Your task to perform on an android device: turn on location history Image 0: 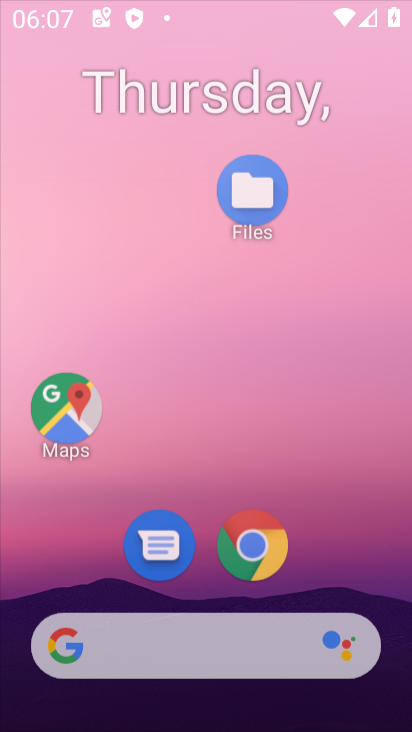
Step 0: drag from (303, 598) to (312, 207)
Your task to perform on an android device: turn on location history Image 1: 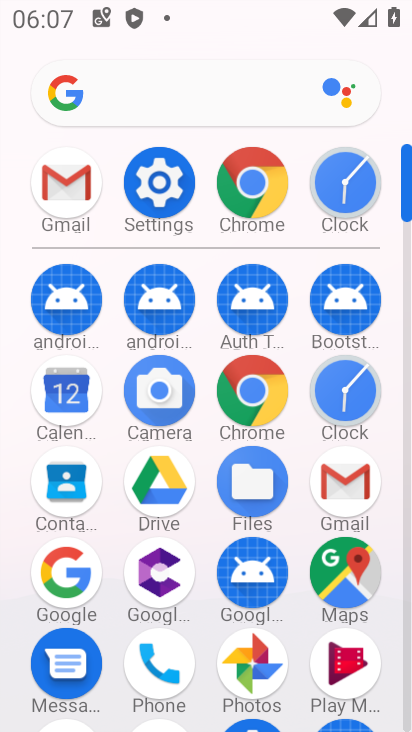
Step 1: drag from (197, 680) to (251, 442)
Your task to perform on an android device: turn on location history Image 2: 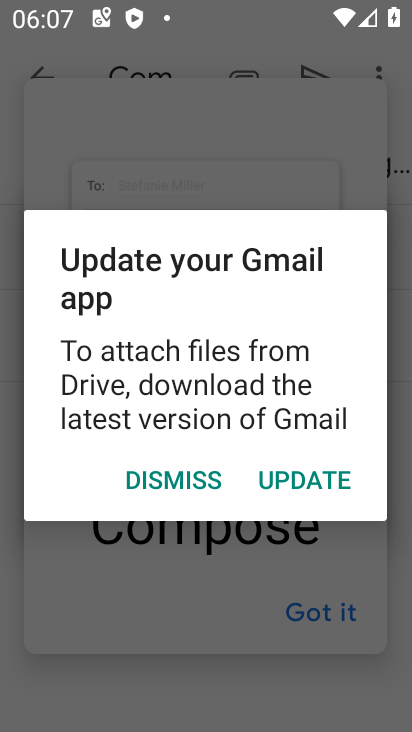
Step 2: press home button
Your task to perform on an android device: turn on location history Image 3: 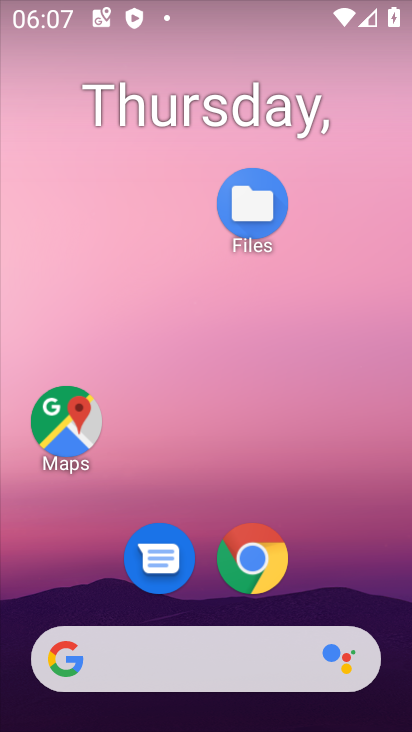
Step 3: drag from (322, 549) to (270, 30)
Your task to perform on an android device: turn on location history Image 4: 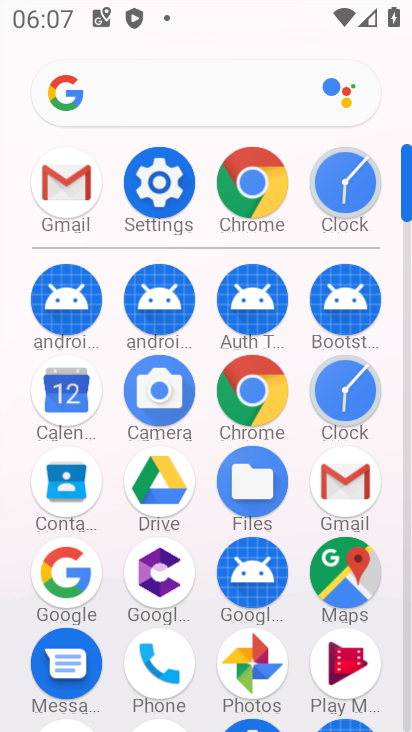
Step 4: click (169, 203)
Your task to perform on an android device: turn on location history Image 5: 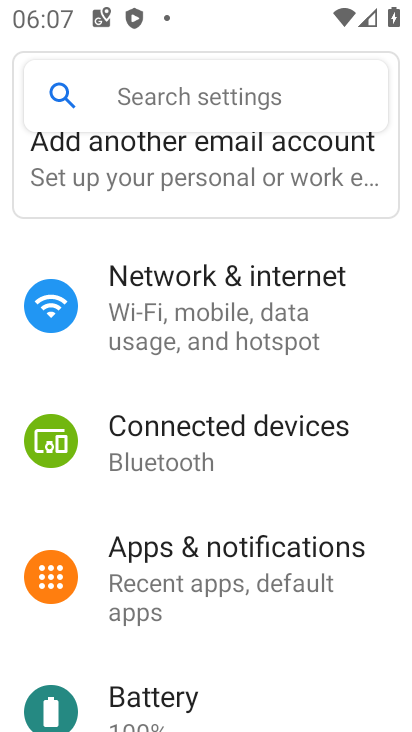
Step 5: drag from (222, 561) to (359, 107)
Your task to perform on an android device: turn on location history Image 6: 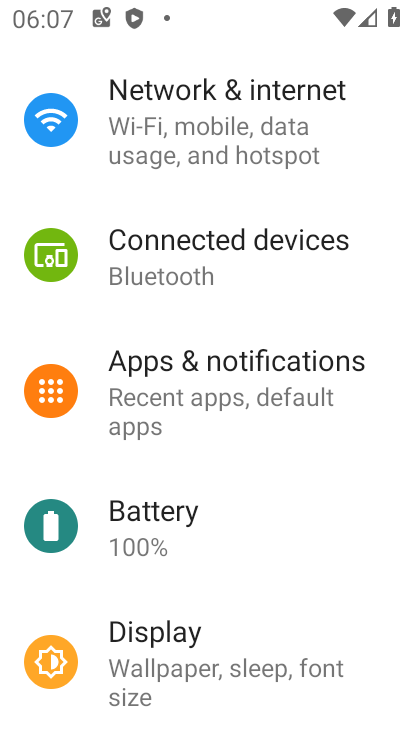
Step 6: drag from (243, 620) to (286, 273)
Your task to perform on an android device: turn on location history Image 7: 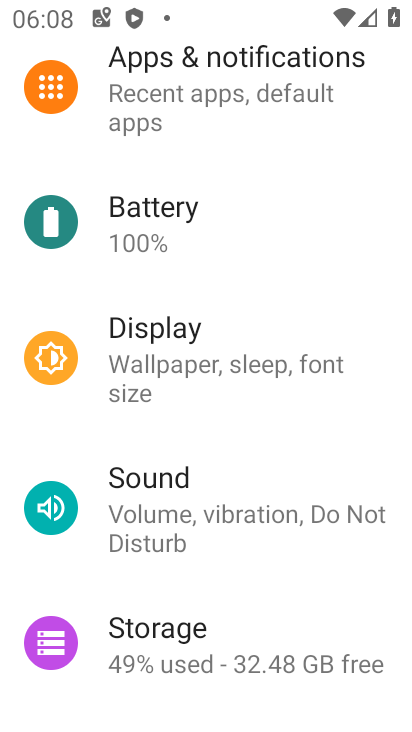
Step 7: drag from (173, 552) to (229, 233)
Your task to perform on an android device: turn on location history Image 8: 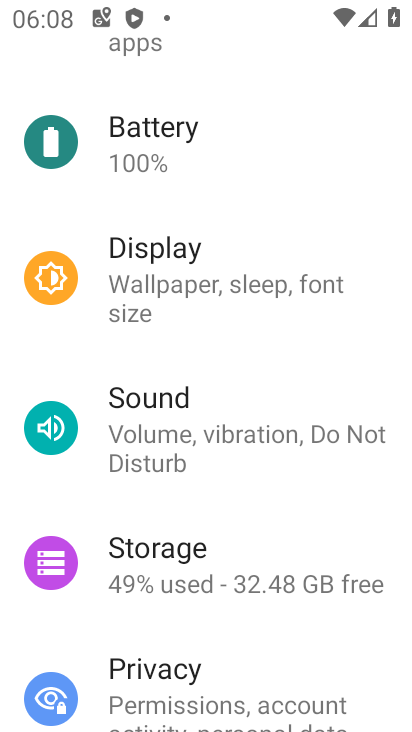
Step 8: drag from (177, 620) to (245, 274)
Your task to perform on an android device: turn on location history Image 9: 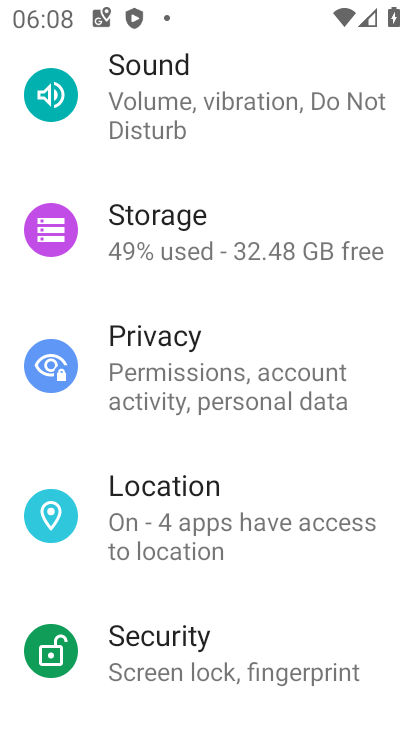
Step 9: click (156, 511)
Your task to perform on an android device: turn on location history Image 10: 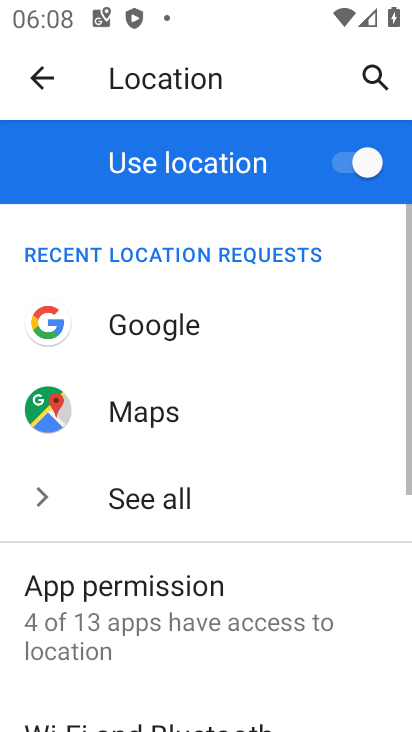
Step 10: drag from (211, 602) to (275, 228)
Your task to perform on an android device: turn on location history Image 11: 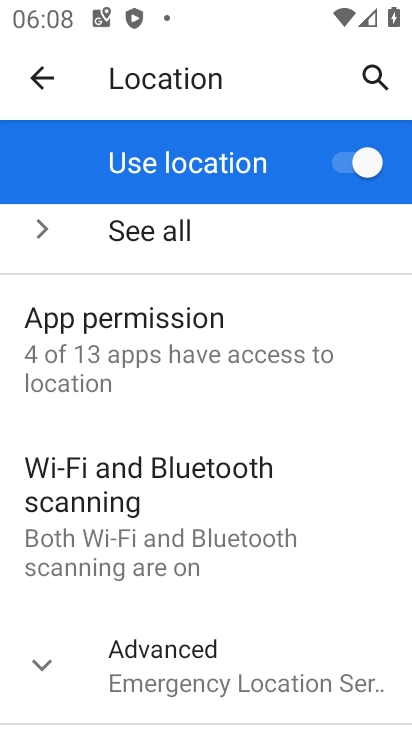
Step 11: drag from (169, 461) to (204, 288)
Your task to perform on an android device: turn on location history Image 12: 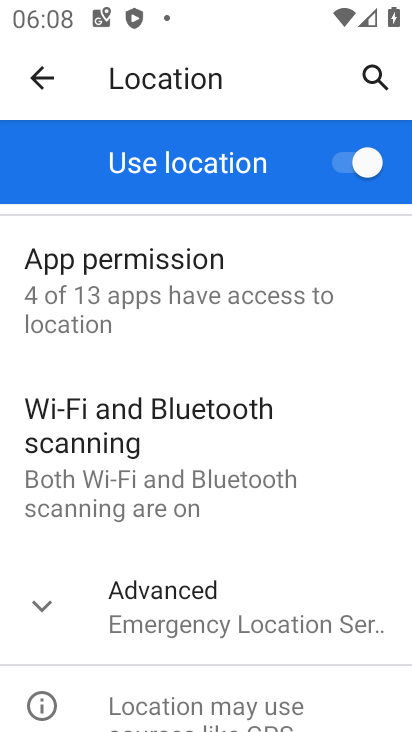
Step 12: click (172, 668)
Your task to perform on an android device: turn on location history Image 13: 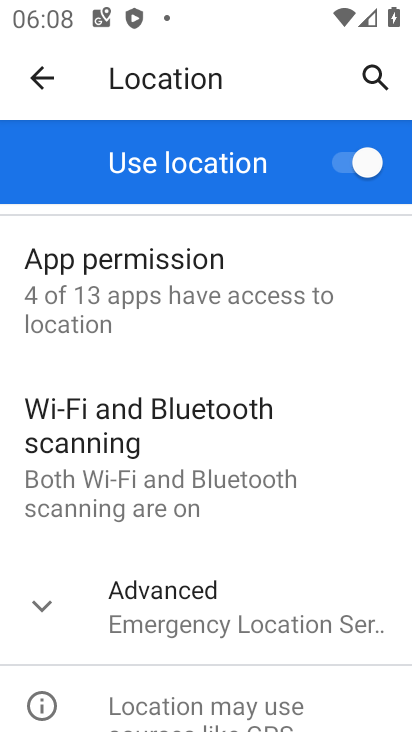
Step 13: click (154, 597)
Your task to perform on an android device: turn on location history Image 14: 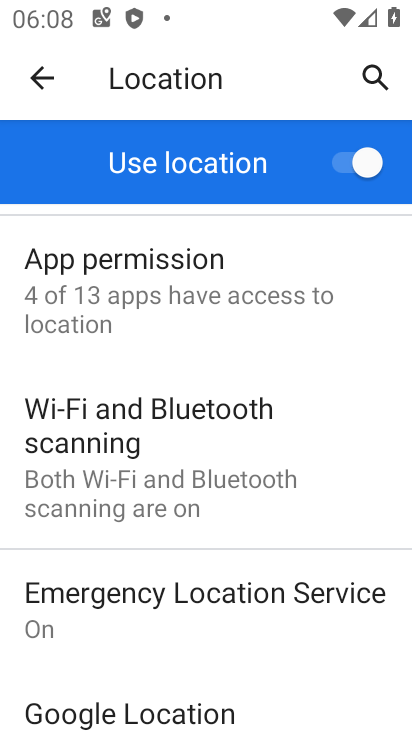
Step 14: drag from (160, 581) to (214, 276)
Your task to perform on an android device: turn on location history Image 15: 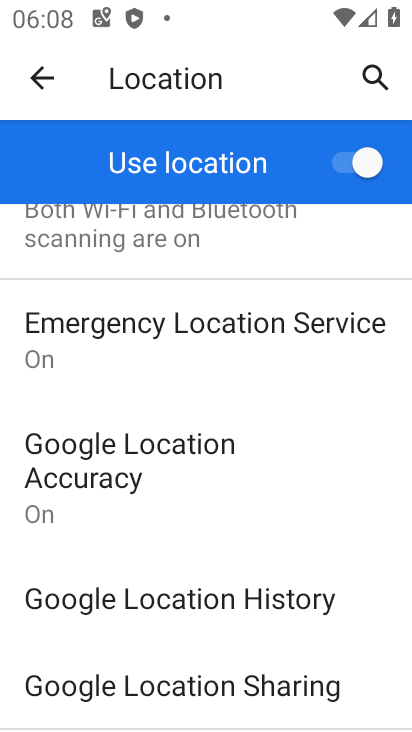
Step 15: drag from (172, 672) to (249, 366)
Your task to perform on an android device: turn on location history Image 16: 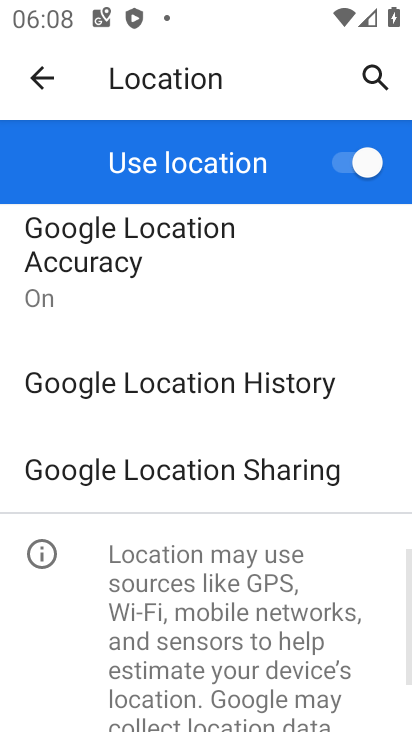
Step 16: drag from (273, 658) to (272, 324)
Your task to perform on an android device: turn on location history Image 17: 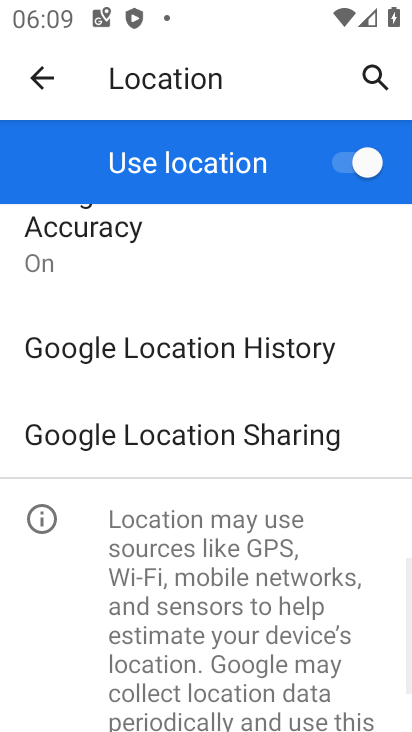
Step 17: drag from (184, 442) to (216, 269)
Your task to perform on an android device: turn on location history Image 18: 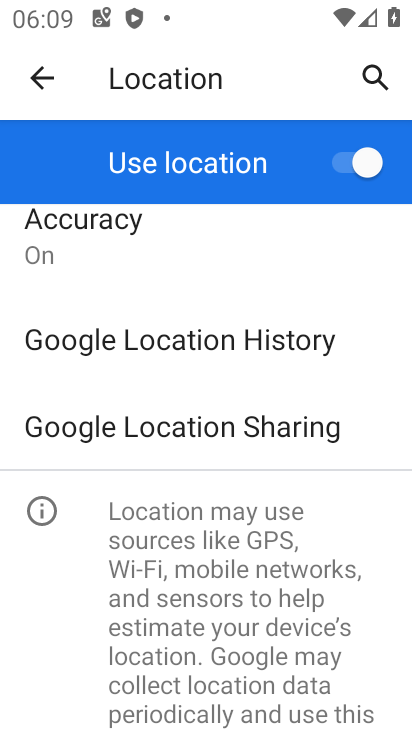
Step 18: click (156, 344)
Your task to perform on an android device: turn on location history Image 19: 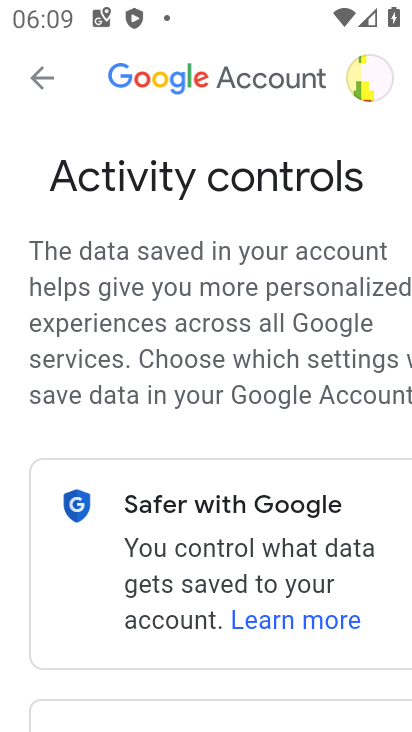
Step 19: task complete